Your task to perform on an android device: set an alarm Image 0: 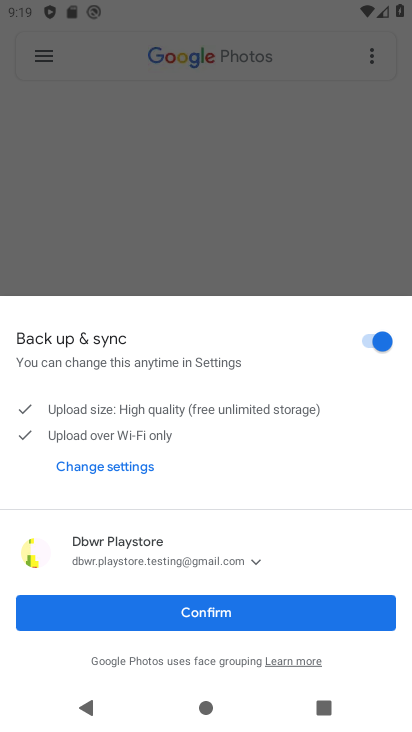
Step 0: press home button
Your task to perform on an android device: set an alarm Image 1: 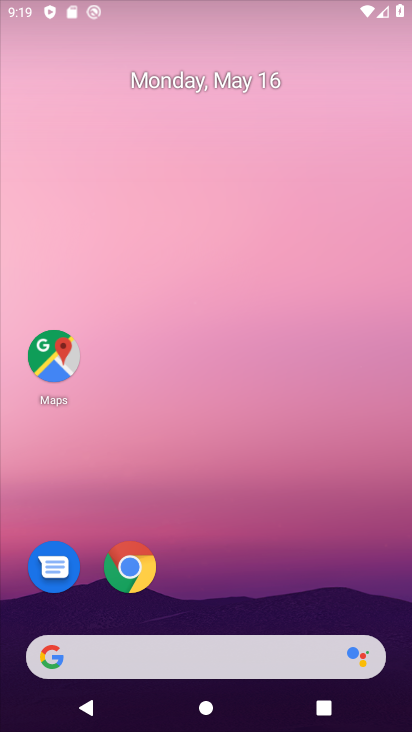
Step 1: drag from (236, 474) to (235, 150)
Your task to perform on an android device: set an alarm Image 2: 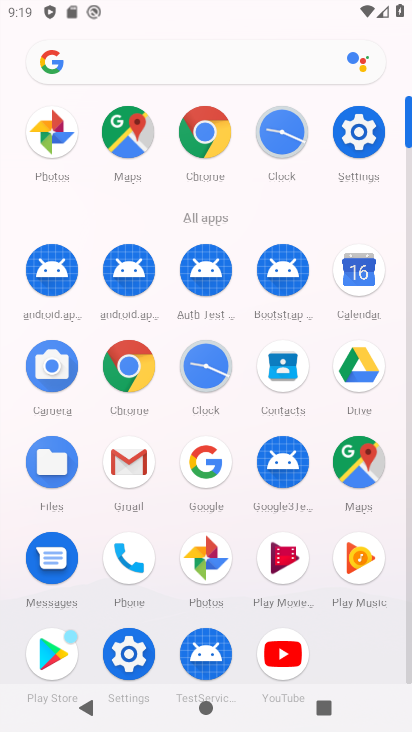
Step 2: click (210, 358)
Your task to perform on an android device: set an alarm Image 3: 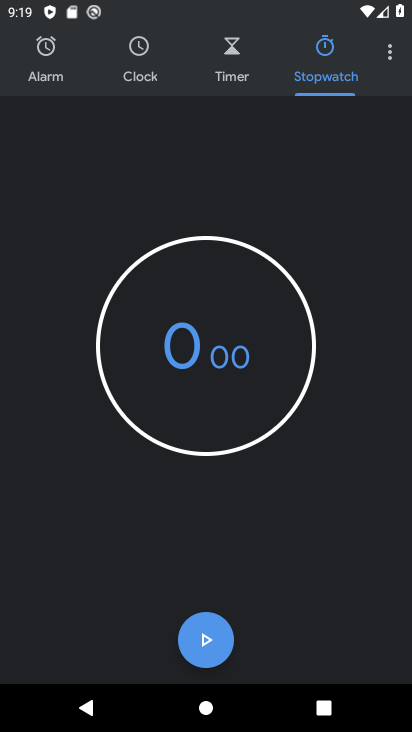
Step 3: click (54, 66)
Your task to perform on an android device: set an alarm Image 4: 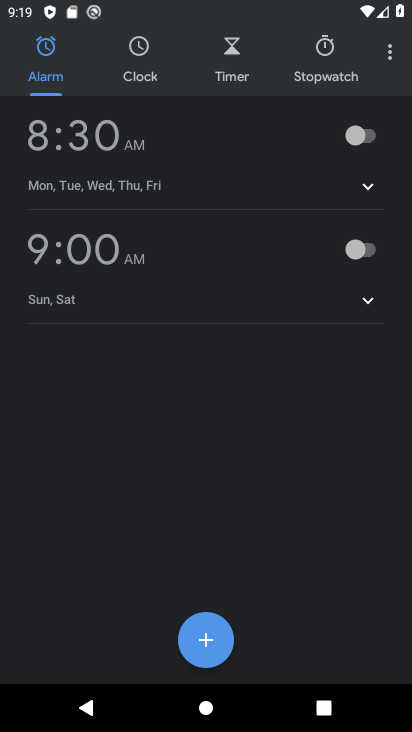
Step 4: click (360, 141)
Your task to perform on an android device: set an alarm Image 5: 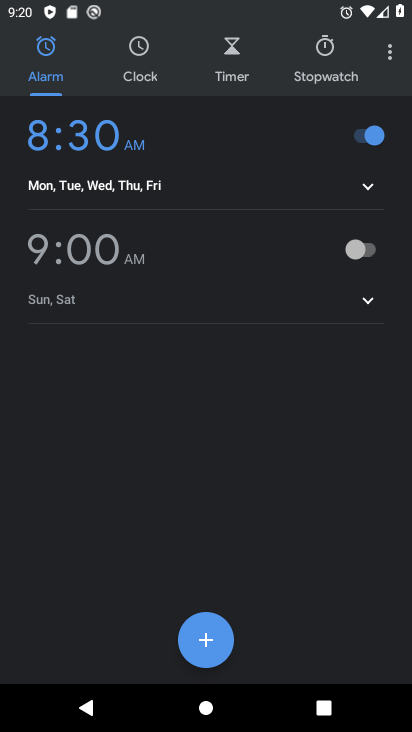
Step 5: click (360, 188)
Your task to perform on an android device: set an alarm Image 6: 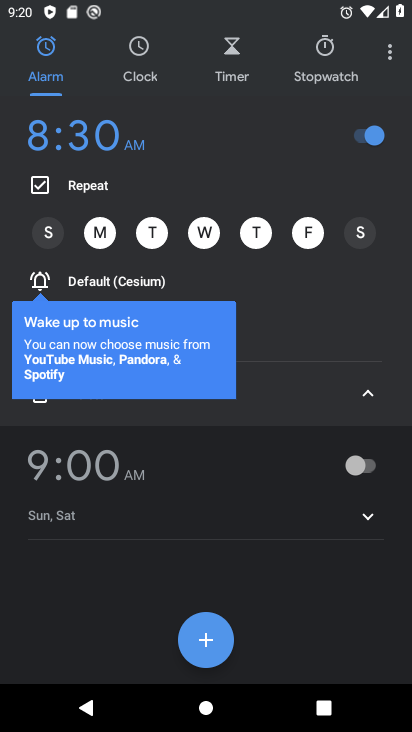
Step 6: click (35, 234)
Your task to perform on an android device: set an alarm Image 7: 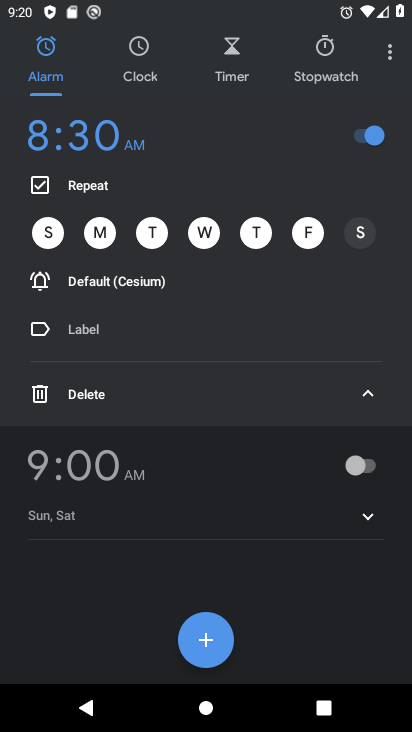
Step 7: click (358, 228)
Your task to perform on an android device: set an alarm Image 8: 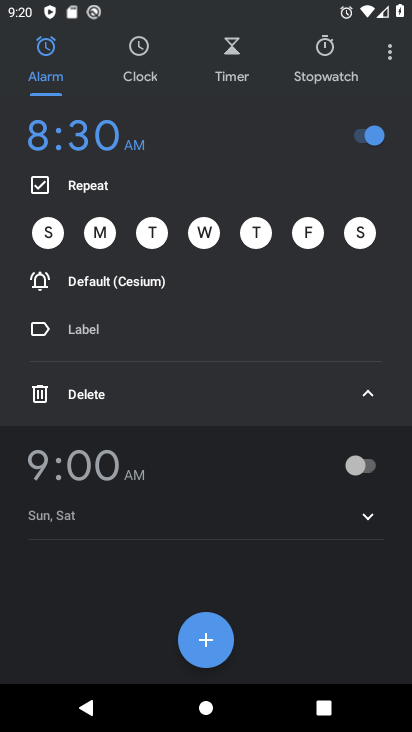
Step 8: click (370, 400)
Your task to perform on an android device: set an alarm Image 9: 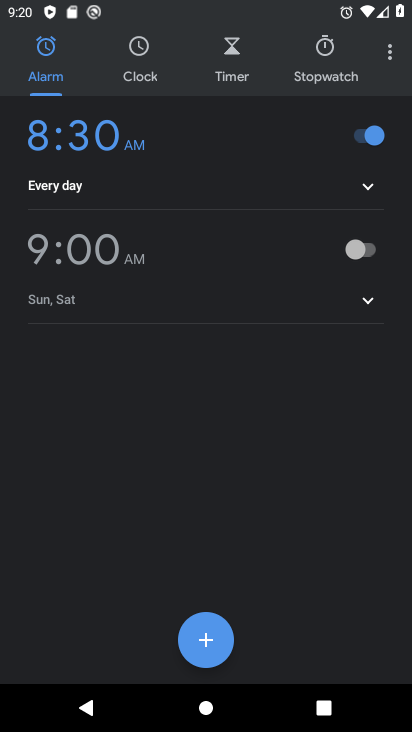
Step 9: task complete